Your task to perform on an android device: Open Wikipedia Image 0: 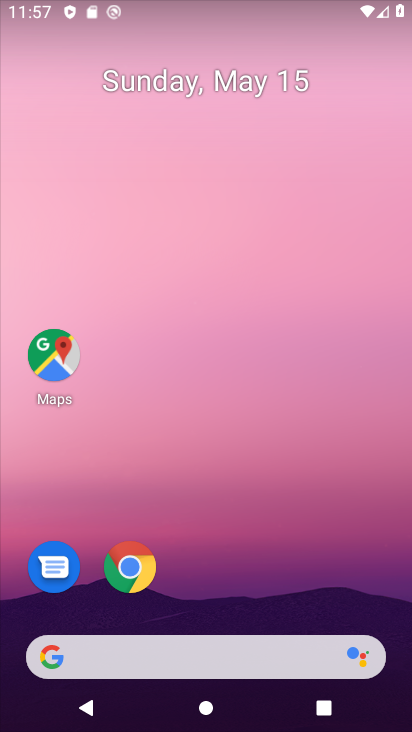
Step 0: click (139, 570)
Your task to perform on an android device: Open Wikipedia Image 1: 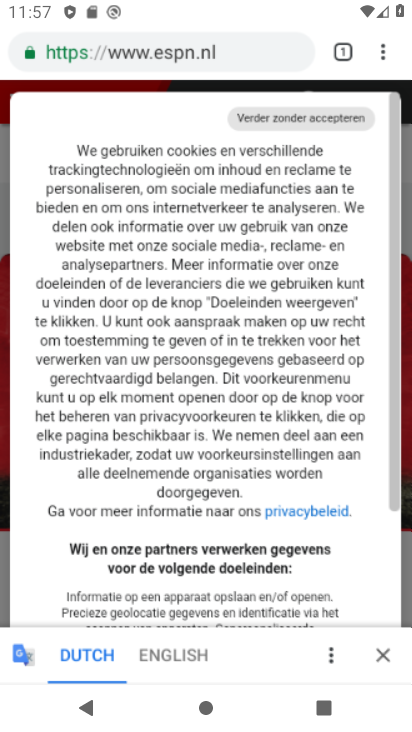
Step 1: click (176, 55)
Your task to perform on an android device: Open Wikipedia Image 2: 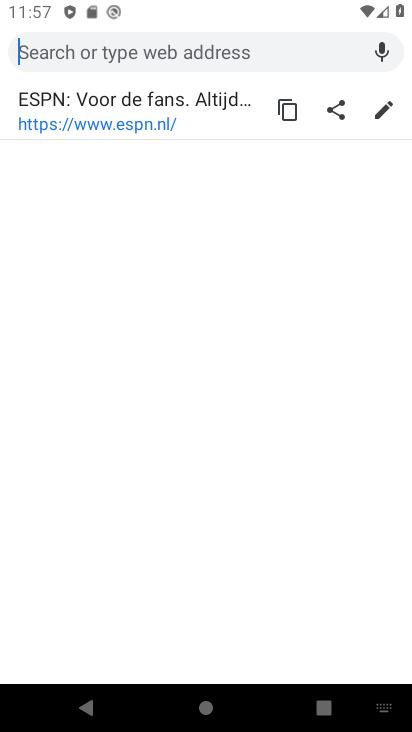
Step 2: type "wikipedia"
Your task to perform on an android device: Open Wikipedia Image 3: 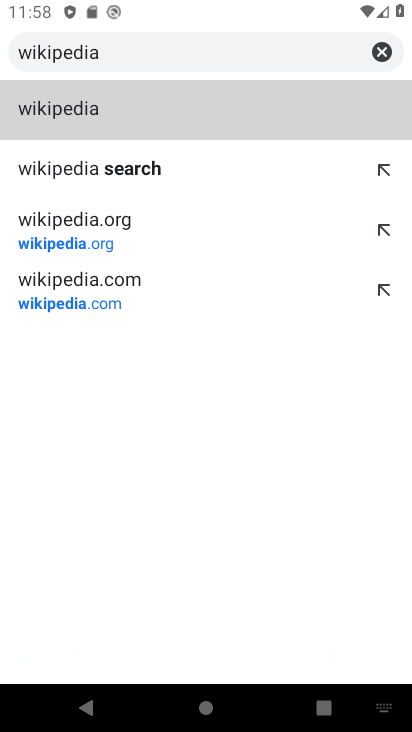
Step 3: click (77, 106)
Your task to perform on an android device: Open Wikipedia Image 4: 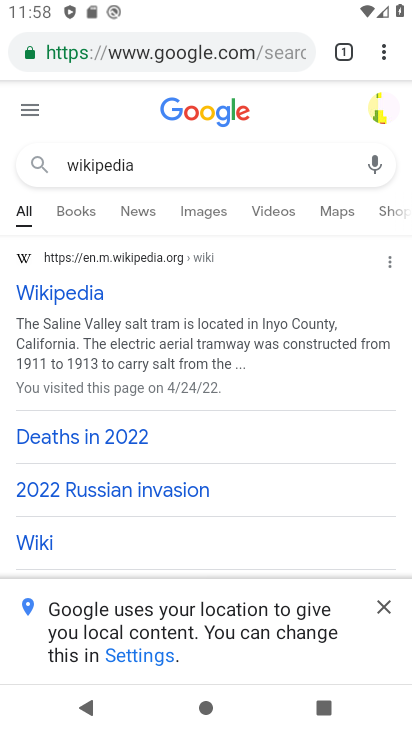
Step 4: click (75, 305)
Your task to perform on an android device: Open Wikipedia Image 5: 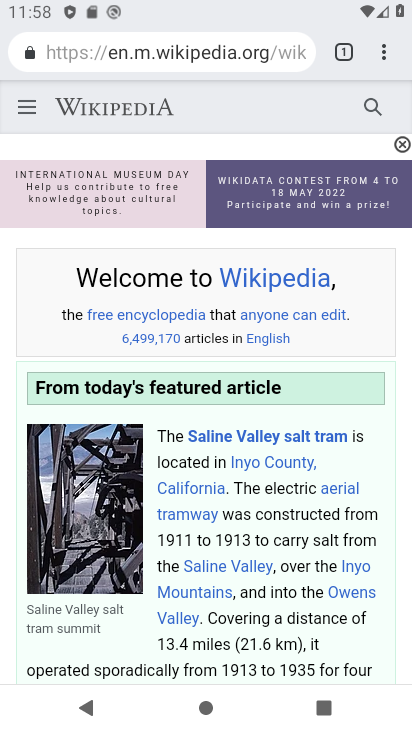
Step 5: task complete